Your task to perform on an android device: toggle airplane mode Image 0: 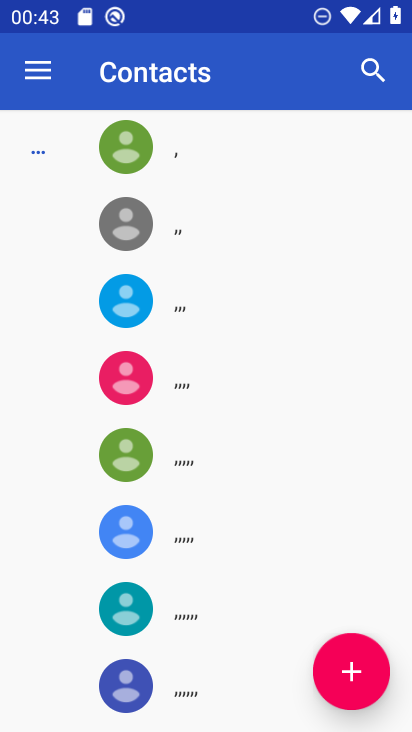
Step 0: press home button
Your task to perform on an android device: toggle airplane mode Image 1: 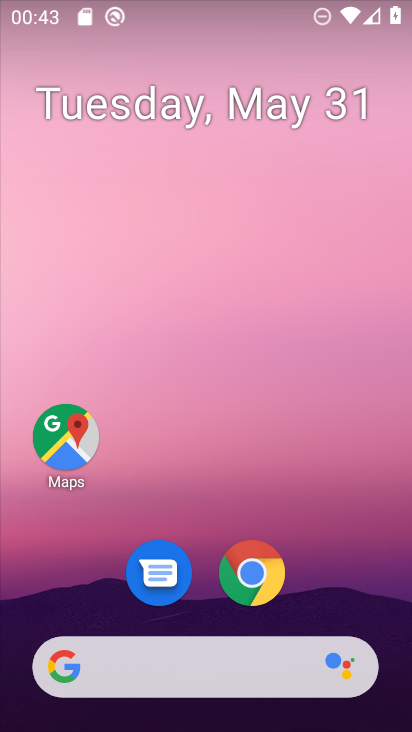
Step 1: drag from (173, 670) to (308, 1)
Your task to perform on an android device: toggle airplane mode Image 2: 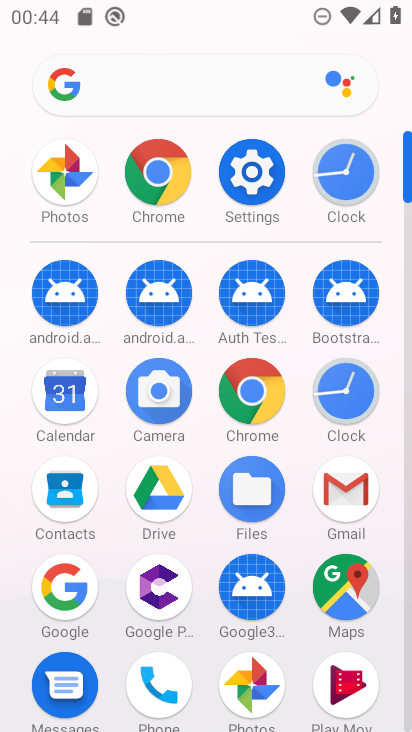
Step 2: click (239, 188)
Your task to perform on an android device: toggle airplane mode Image 3: 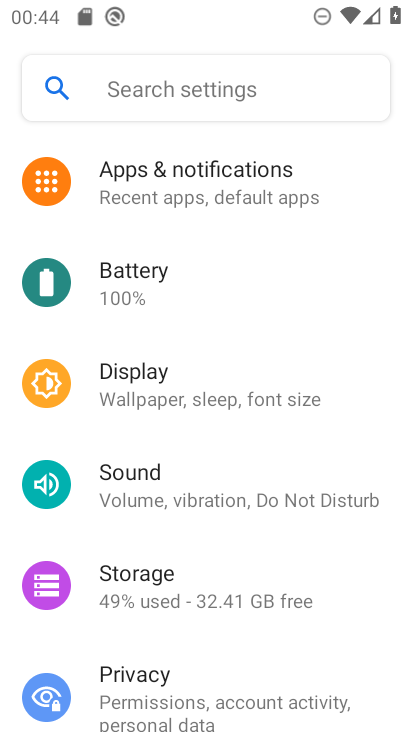
Step 3: drag from (320, 233) to (205, 703)
Your task to perform on an android device: toggle airplane mode Image 4: 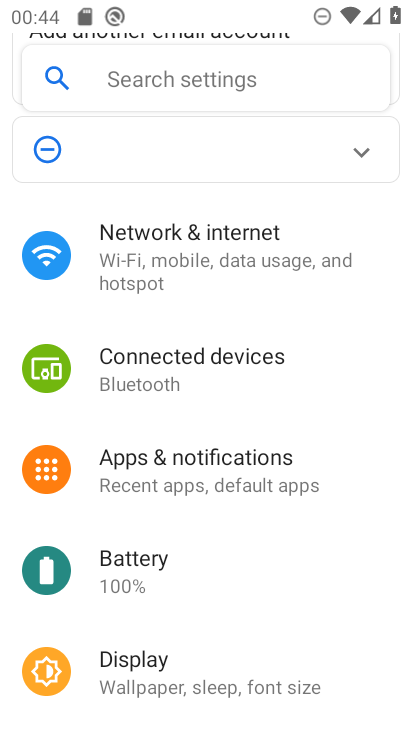
Step 4: click (293, 254)
Your task to perform on an android device: toggle airplane mode Image 5: 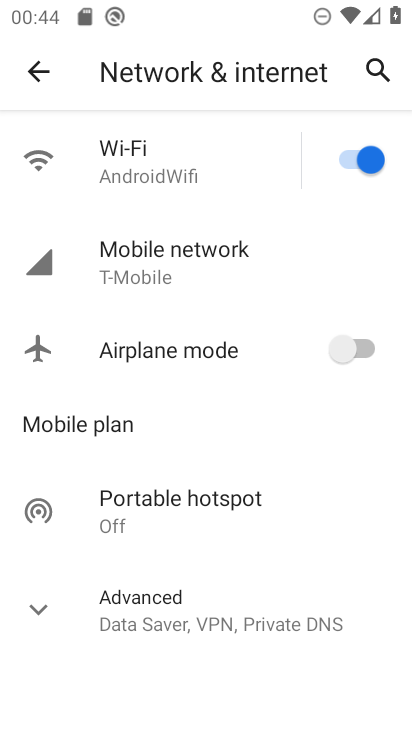
Step 5: click (359, 335)
Your task to perform on an android device: toggle airplane mode Image 6: 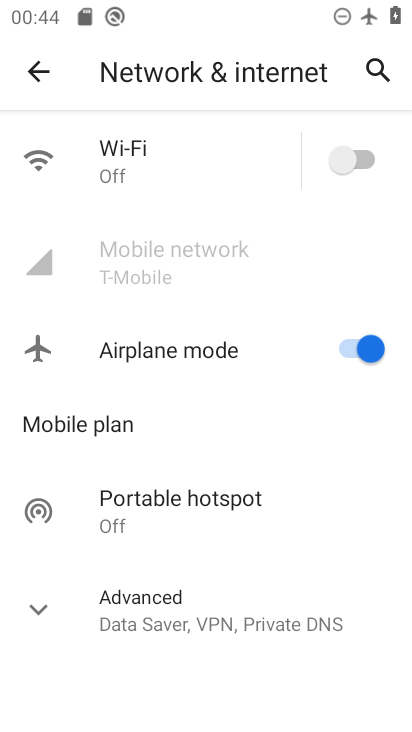
Step 6: task complete